Your task to perform on an android device: turn off location Image 0: 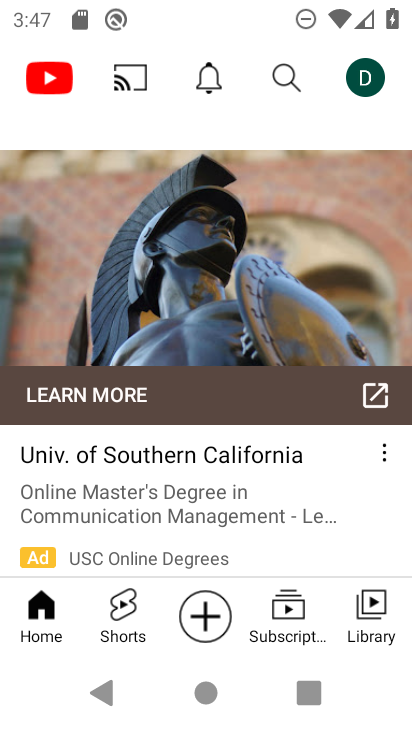
Step 0: press home button
Your task to perform on an android device: turn off location Image 1: 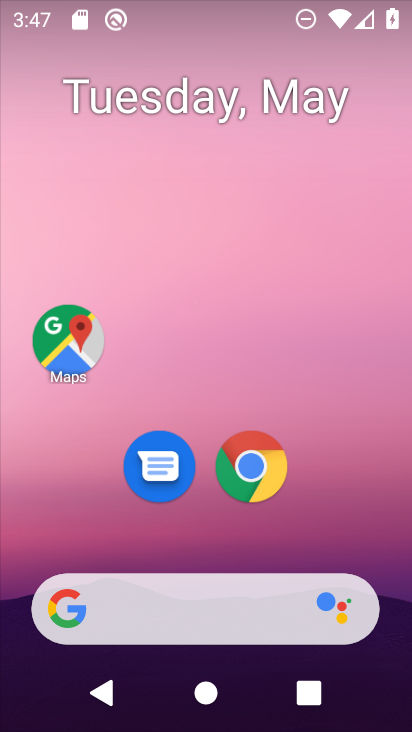
Step 1: drag from (270, 545) to (292, 107)
Your task to perform on an android device: turn off location Image 2: 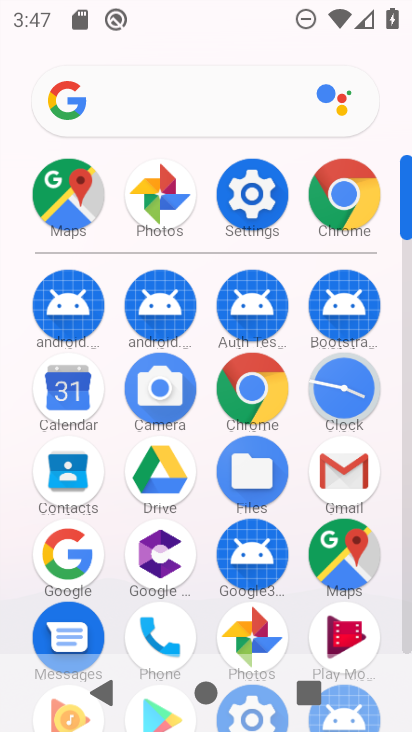
Step 2: click (253, 201)
Your task to perform on an android device: turn off location Image 3: 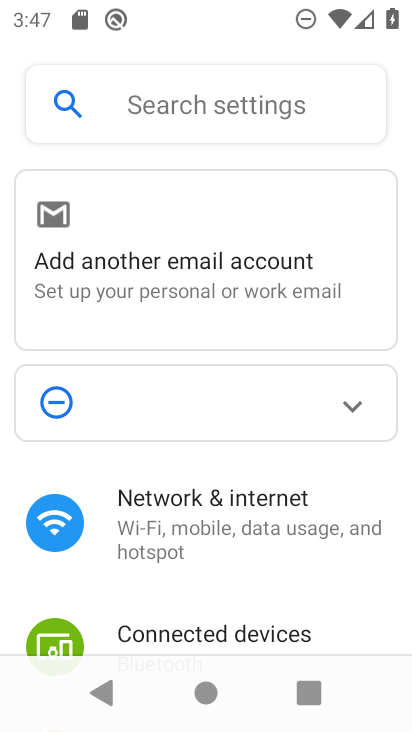
Step 3: drag from (334, 615) to (312, 146)
Your task to perform on an android device: turn off location Image 4: 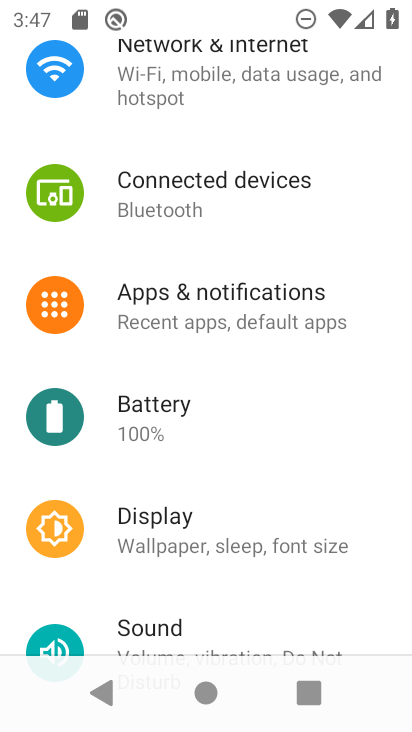
Step 4: drag from (279, 558) to (338, 179)
Your task to perform on an android device: turn off location Image 5: 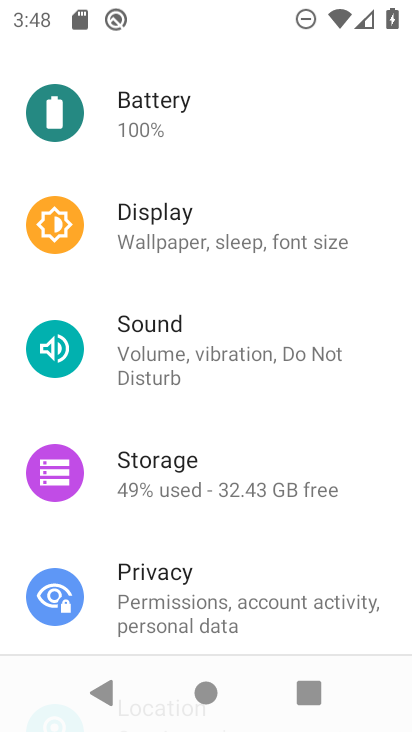
Step 5: drag from (242, 613) to (257, 211)
Your task to perform on an android device: turn off location Image 6: 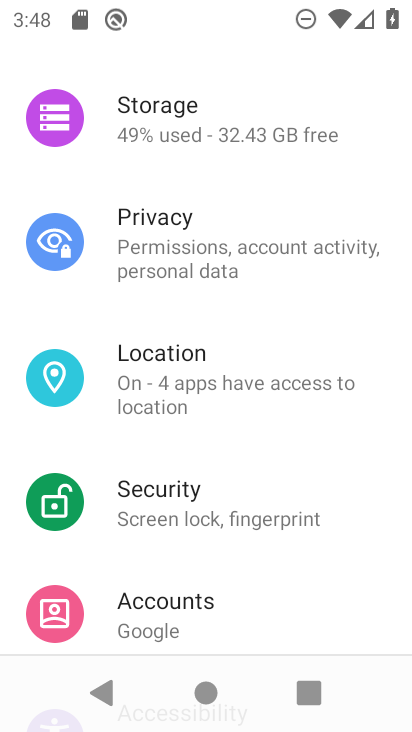
Step 6: click (155, 379)
Your task to perform on an android device: turn off location Image 7: 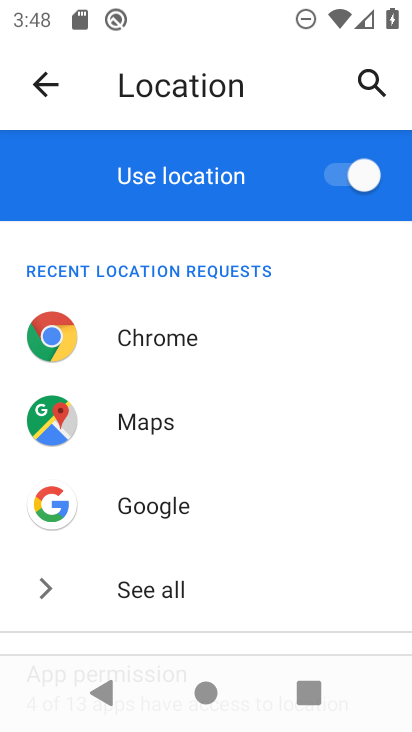
Step 7: click (337, 177)
Your task to perform on an android device: turn off location Image 8: 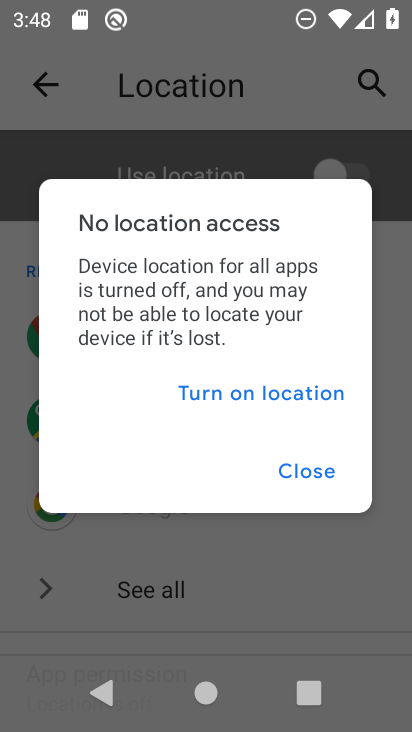
Step 8: click (313, 471)
Your task to perform on an android device: turn off location Image 9: 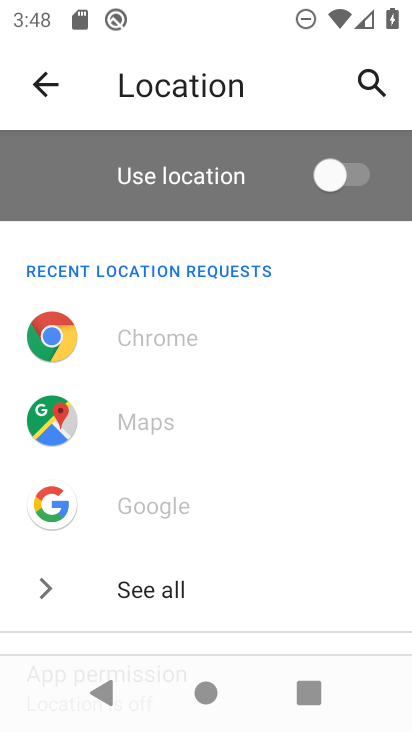
Step 9: task complete